Your task to perform on an android device: open sync settings in chrome Image 0: 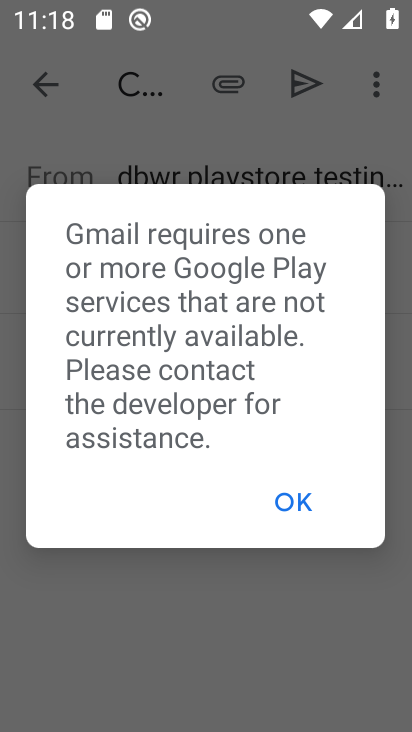
Step 0: press home button
Your task to perform on an android device: open sync settings in chrome Image 1: 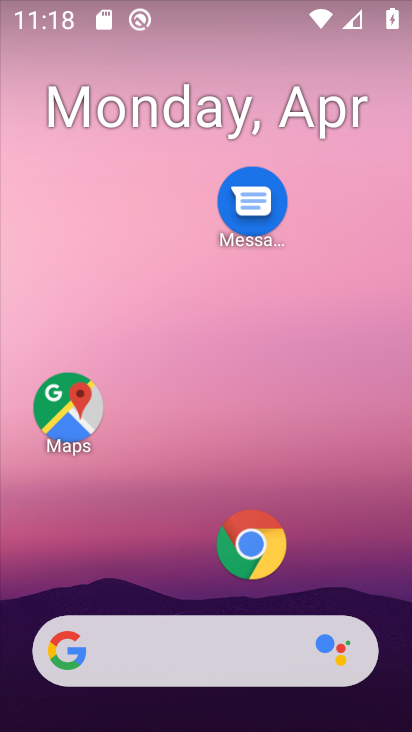
Step 1: click (246, 537)
Your task to perform on an android device: open sync settings in chrome Image 2: 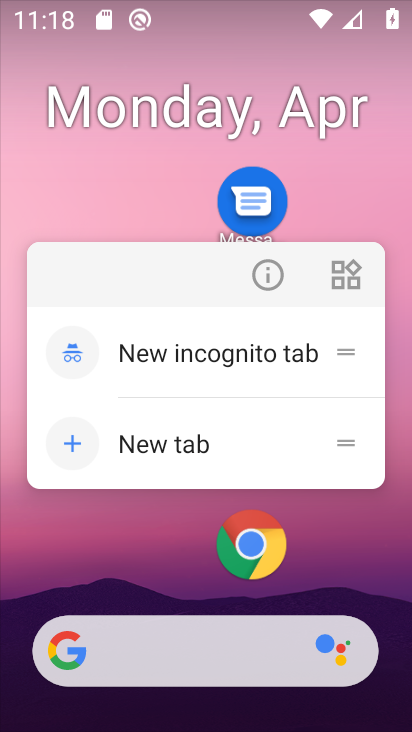
Step 2: click (324, 541)
Your task to perform on an android device: open sync settings in chrome Image 3: 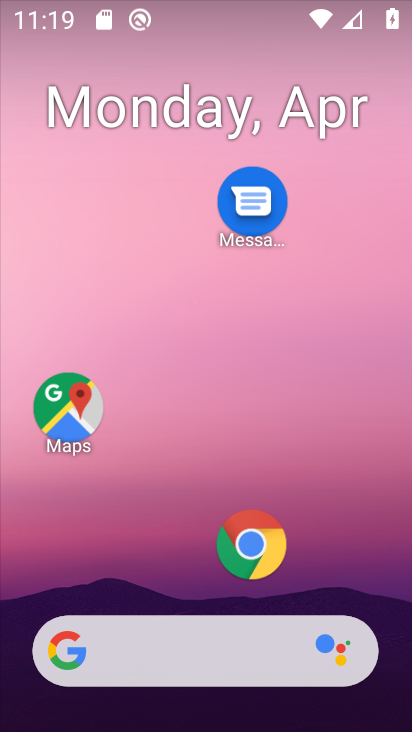
Step 3: click (252, 538)
Your task to perform on an android device: open sync settings in chrome Image 4: 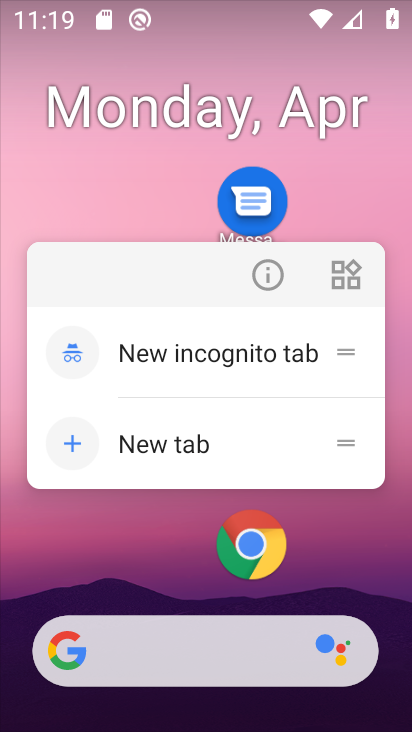
Step 4: click (339, 566)
Your task to perform on an android device: open sync settings in chrome Image 5: 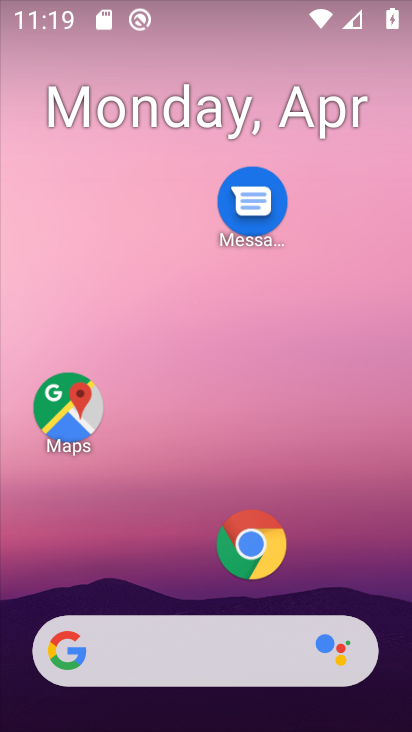
Step 5: drag from (310, 593) to (345, 33)
Your task to perform on an android device: open sync settings in chrome Image 6: 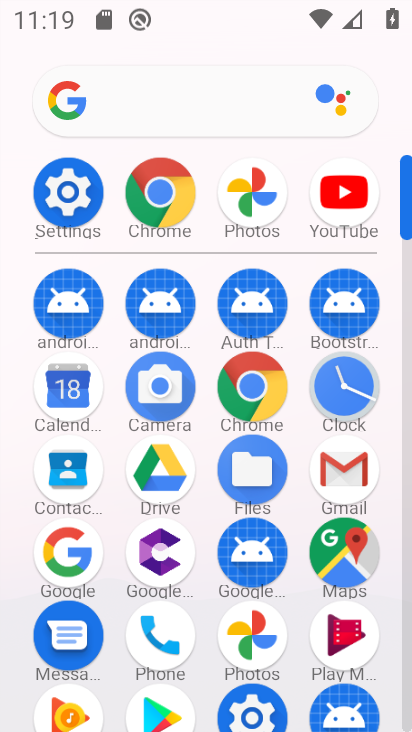
Step 6: click (259, 384)
Your task to perform on an android device: open sync settings in chrome Image 7: 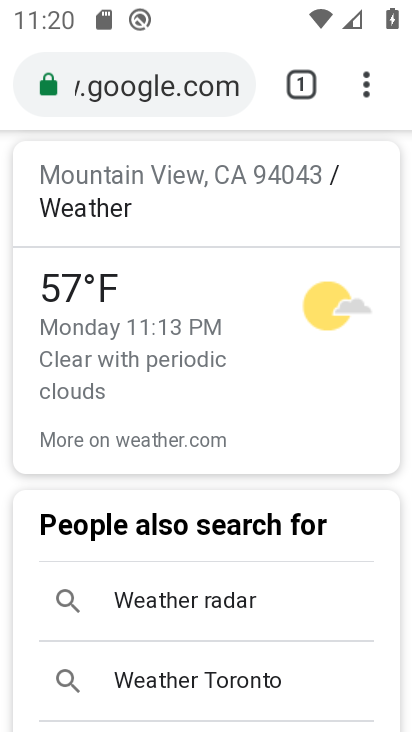
Step 7: click (368, 85)
Your task to perform on an android device: open sync settings in chrome Image 8: 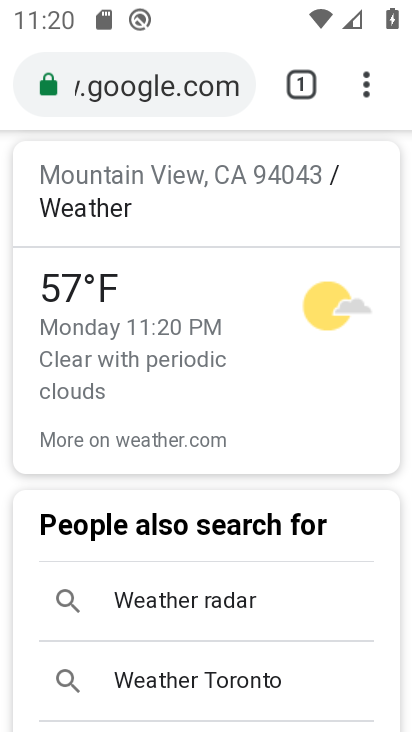
Step 8: click (370, 85)
Your task to perform on an android device: open sync settings in chrome Image 9: 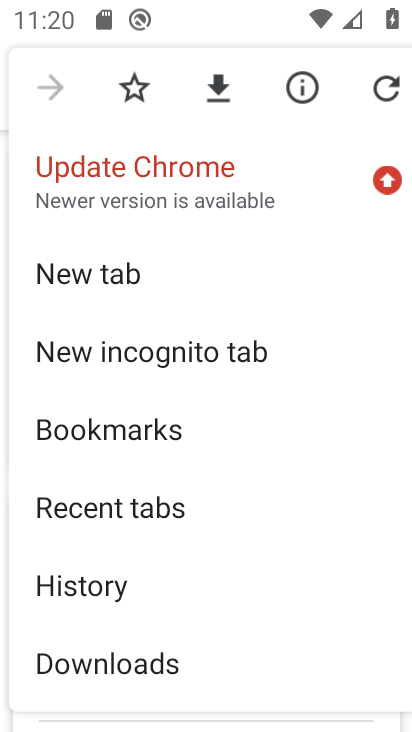
Step 9: drag from (161, 629) to (223, 155)
Your task to perform on an android device: open sync settings in chrome Image 10: 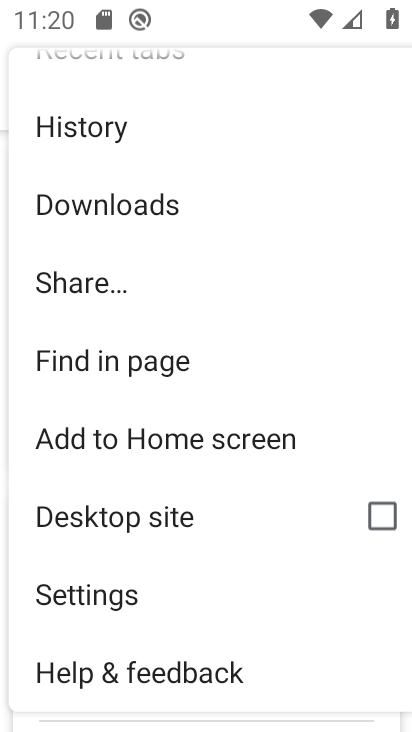
Step 10: click (128, 596)
Your task to perform on an android device: open sync settings in chrome Image 11: 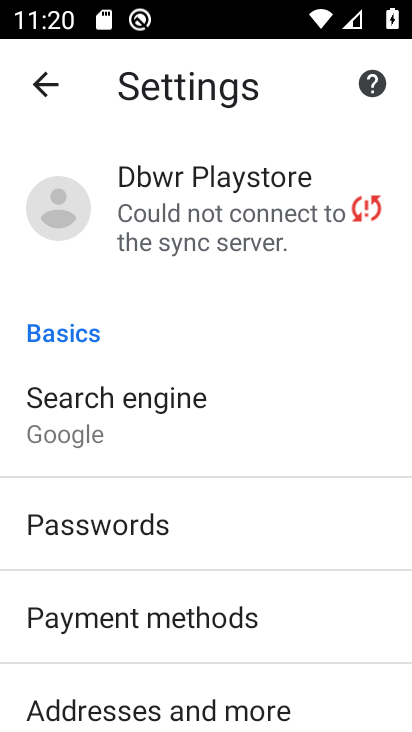
Step 11: click (172, 212)
Your task to perform on an android device: open sync settings in chrome Image 12: 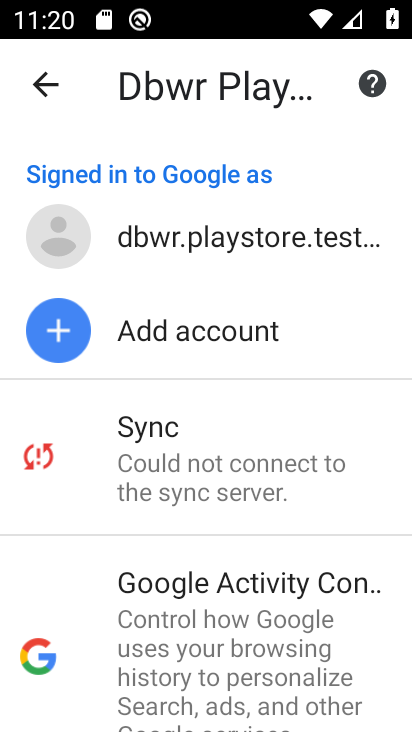
Step 12: click (167, 468)
Your task to perform on an android device: open sync settings in chrome Image 13: 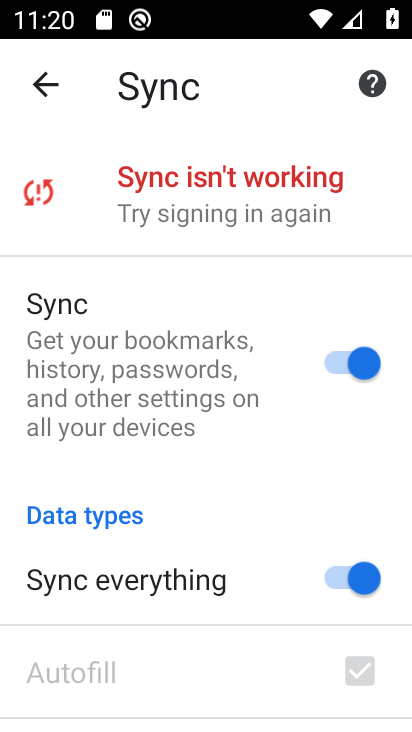
Step 13: task complete